Your task to perform on an android device: change your default location settings in chrome Image 0: 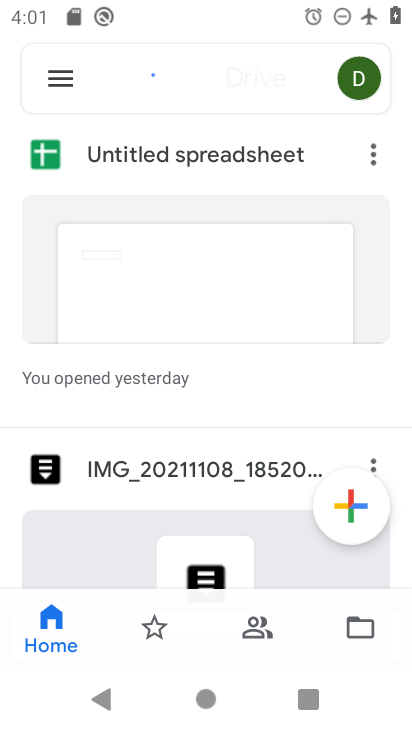
Step 0: press home button
Your task to perform on an android device: change your default location settings in chrome Image 1: 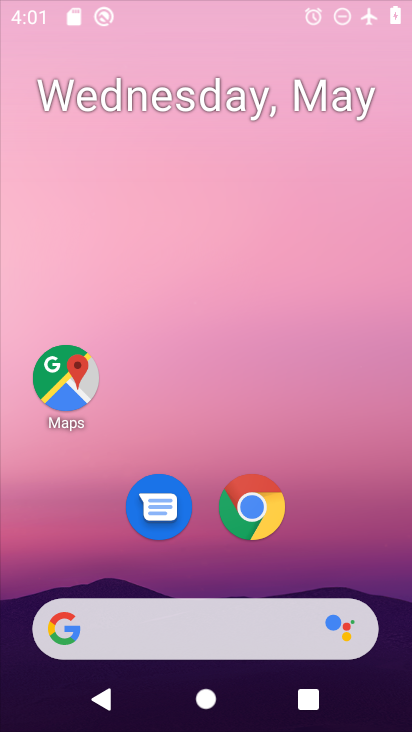
Step 1: drag from (232, 607) to (257, 114)
Your task to perform on an android device: change your default location settings in chrome Image 2: 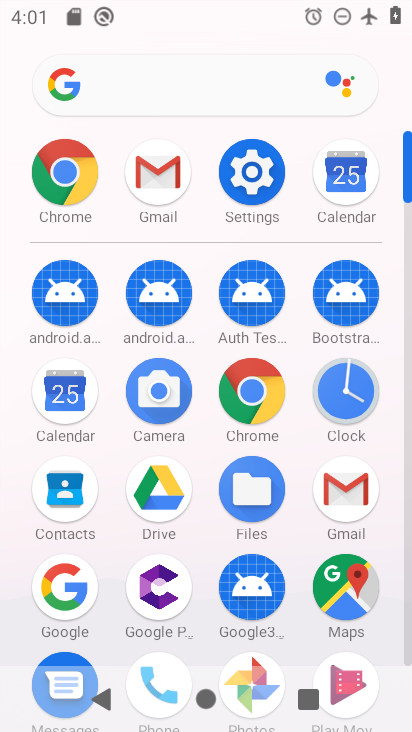
Step 2: click (82, 171)
Your task to perform on an android device: change your default location settings in chrome Image 3: 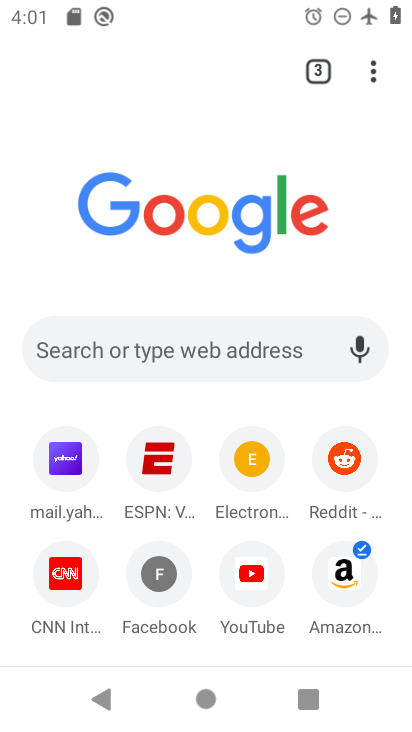
Step 3: click (359, 78)
Your task to perform on an android device: change your default location settings in chrome Image 4: 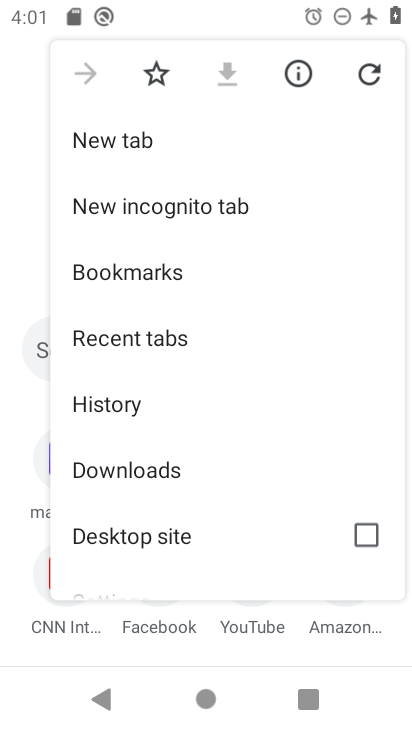
Step 4: drag from (265, 483) to (263, 76)
Your task to perform on an android device: change your default location settings in chrome Image 5: 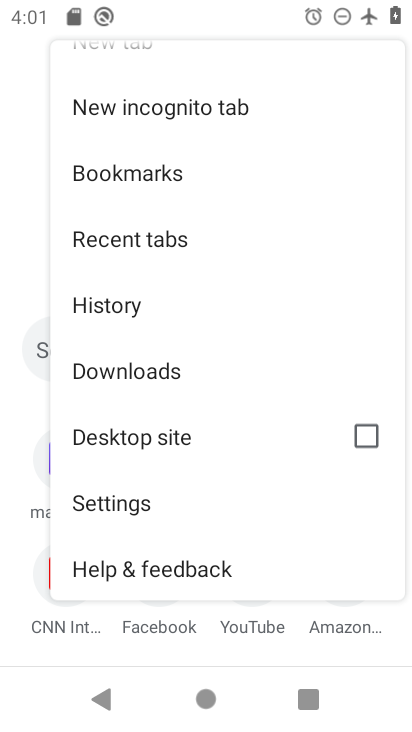
Step 5: click (139, 501)
Your task to perform on an android device: change your default location settings in chrome Image 6: 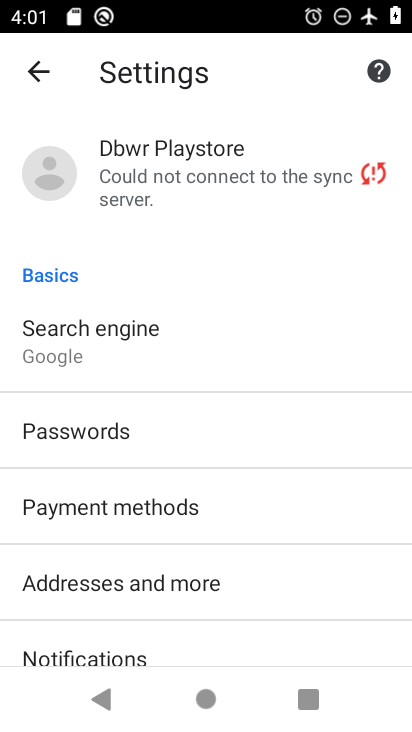
Step 6: drag from (225, 542) to (280, 125)
Your task to perform on an android device: change your default location settings in chrome Image 7: 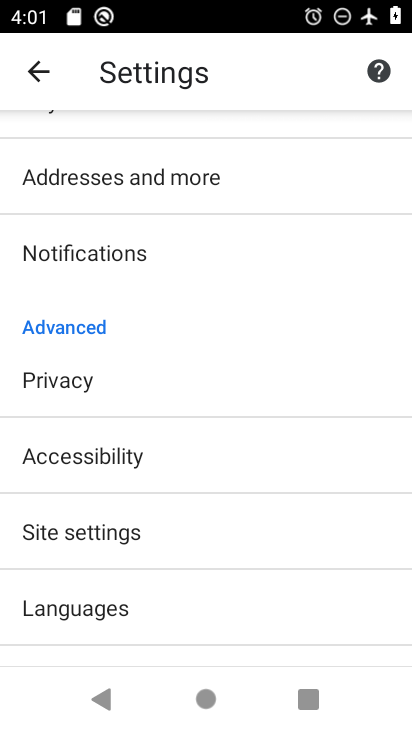
Step 7: click (168, 534)
Your task to perform on an android device: change your default location settings in chrome Image 8: 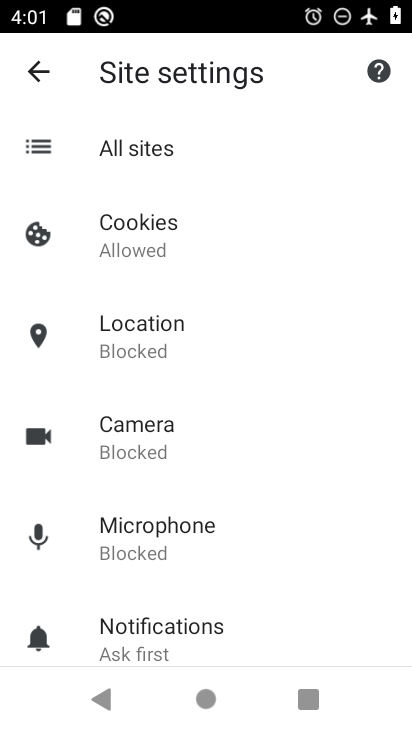
Step 8: click (219, 348)
Your task to perform on an android device: change your default location settings in chrome Image 9: 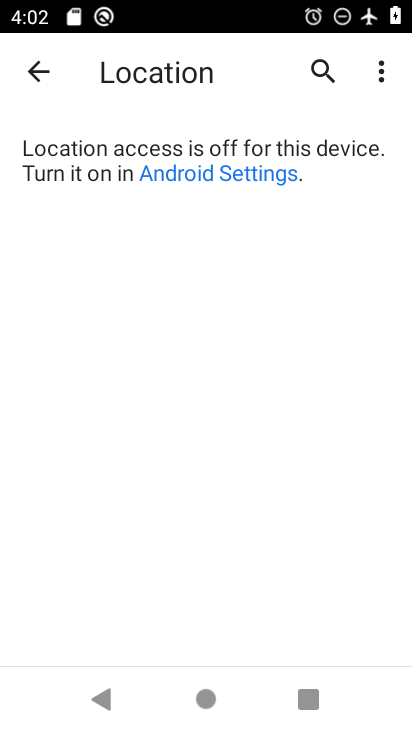
Step 9: task complete